Your task to perform on an android device: make emails show in primary in the gmail app Image 0: 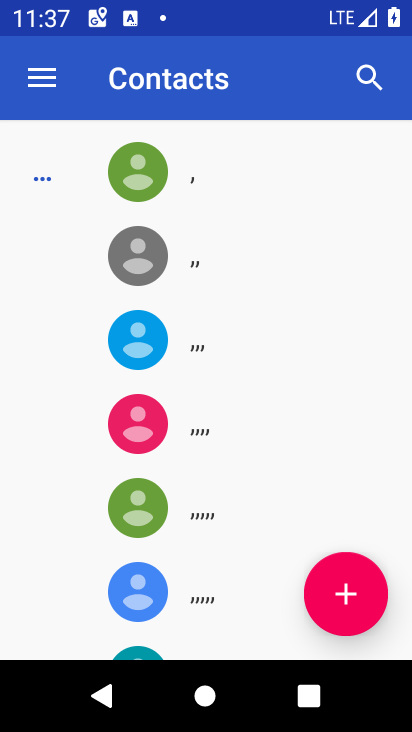
Step 0: drag from (230, 658) to (302, 361)
Your task to perform on an android device: make emails show in primary in the gmail app Image 1: 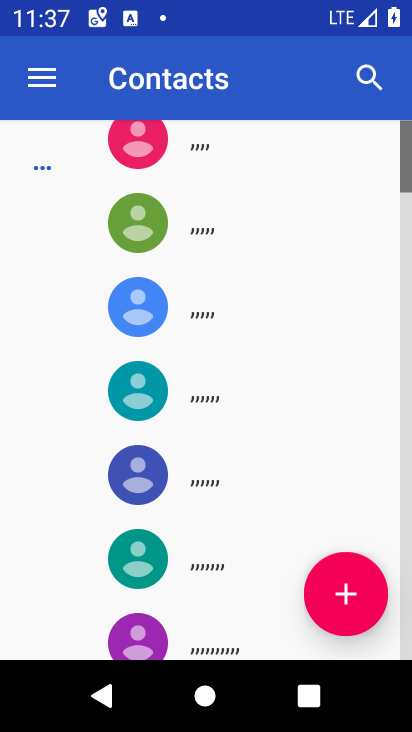
Step 1: press home button
Your task to perform on an android device: make emails show in primary in the gmail app Image 2: 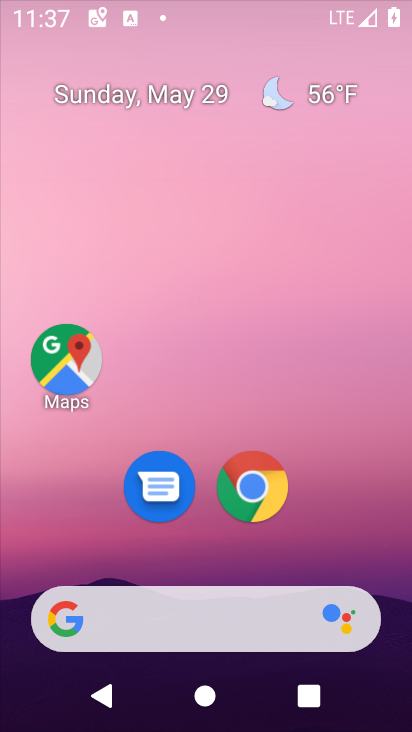
Step 2: drag from (235, 591) to (260, 36)
Your task to perform on an android device: make emails show in primary in the gmail app Image 3: 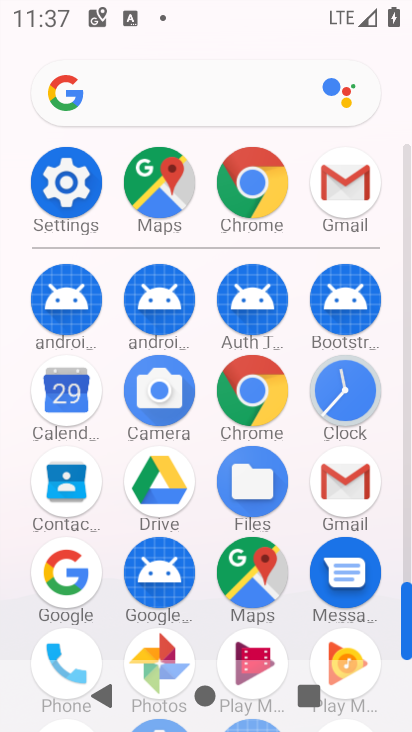
Step 3: click (330, 225)
Your task to perform on an android device: make emails show in primary in the gmail app Image 4: 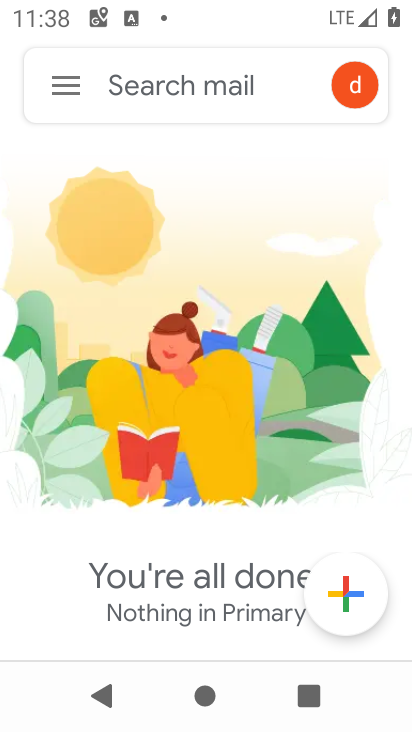
Step 4: press home button
Your task to perform on an android device: make emails show in primary in the gmail app Image 5: 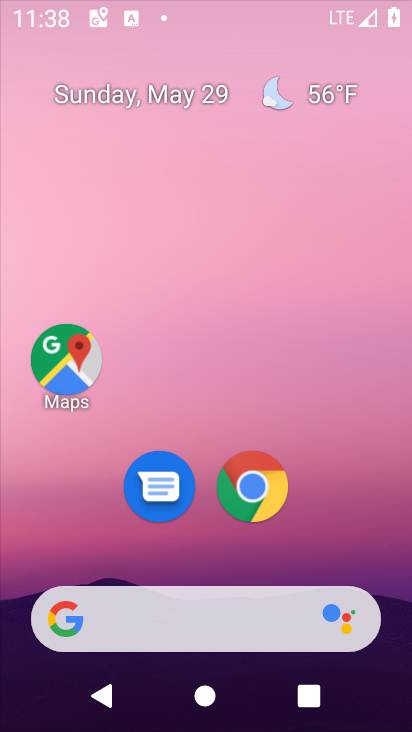
Step 5: drag from (181, 603) to (216, 193)
Your task to perform on an android device: make emails show in primary in the gmail app Image 6: 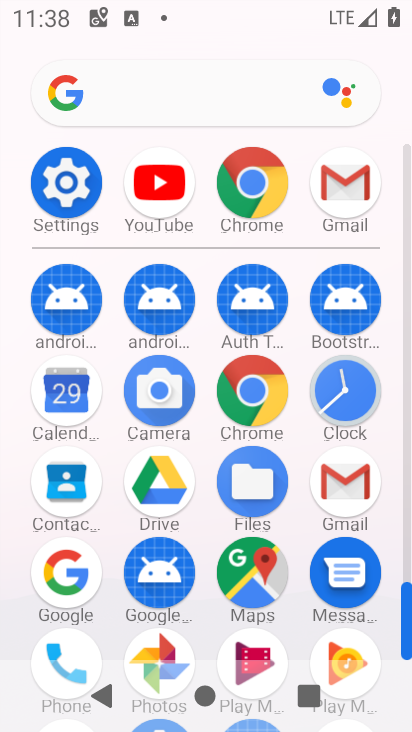
Step 6: click (354, 516)
Your task to perform on an android device: make emails show in primary in the gmail app Image 7: 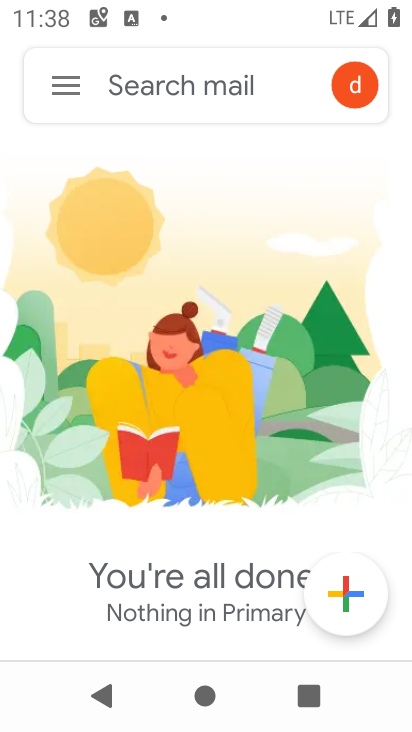
Step 7: click (65, 77)
Your task to perform on an android device: make emails show in primary in the gmail app Image 8: 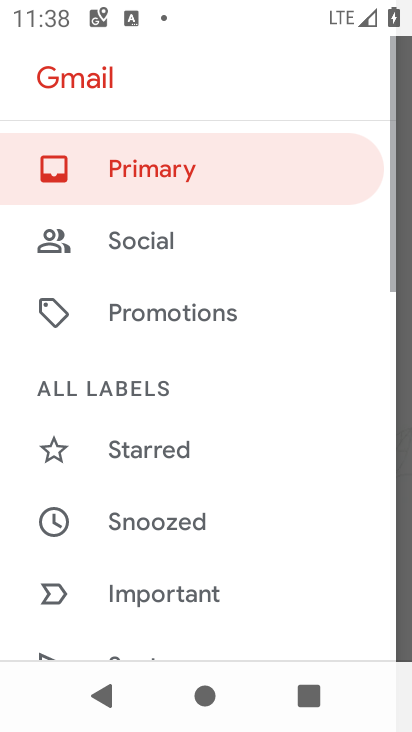
Step 8: task complete